Your task to perform on an android device: check the backup settings in the google photos Image 0: 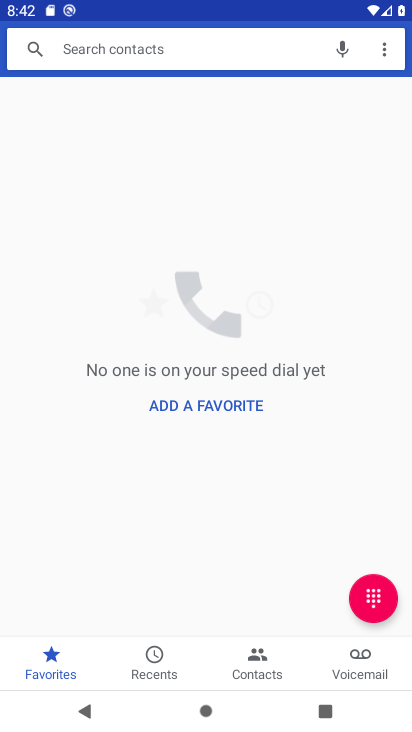
Step 0: press home button
Your task to perform on an android device: check the backup settings in the google photos Image 1: 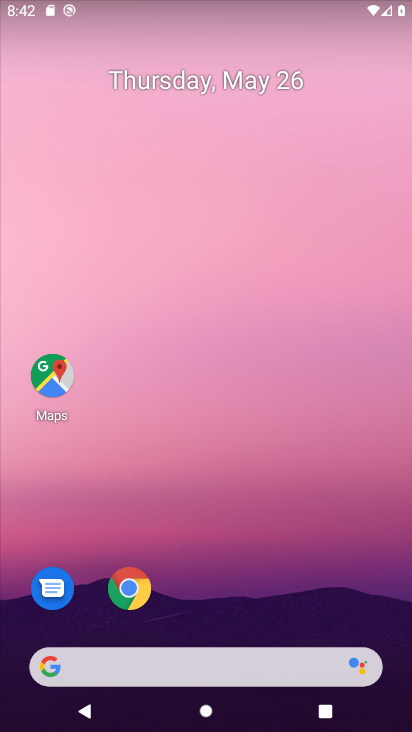
Step 1: drag from (203, 611) to (10, 361)
Your task to perform on an android device: check the backup settings in the google photos Image 2: 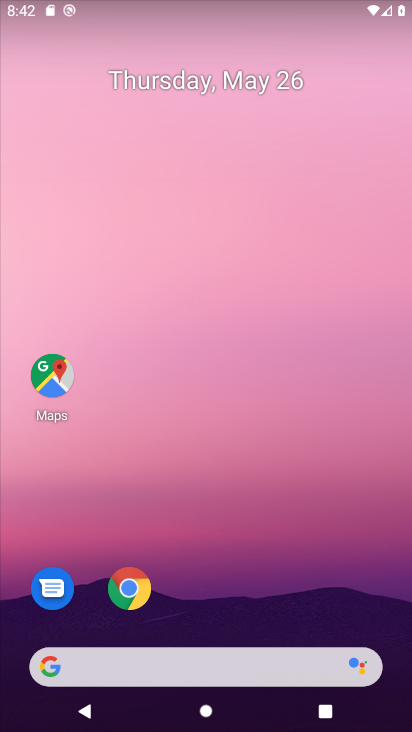
Step 2: drag from (236, 611) to (242, 24)
Your task to perform on an android device: check the backup settings in the google photos Image 3: 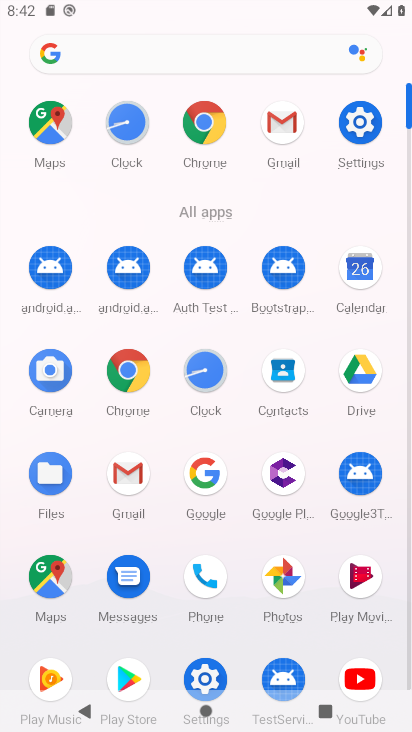
Step 3: click (277, 586)
Your task to perform on an android device: check the backup settings in the google photos Image 4: 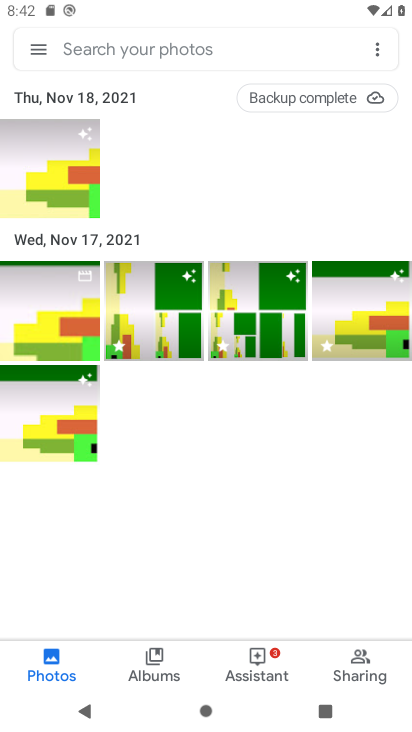
Step 4: click (33, 54)
Your task to perform on an android device: check the backup settings in the google photos Image 5: 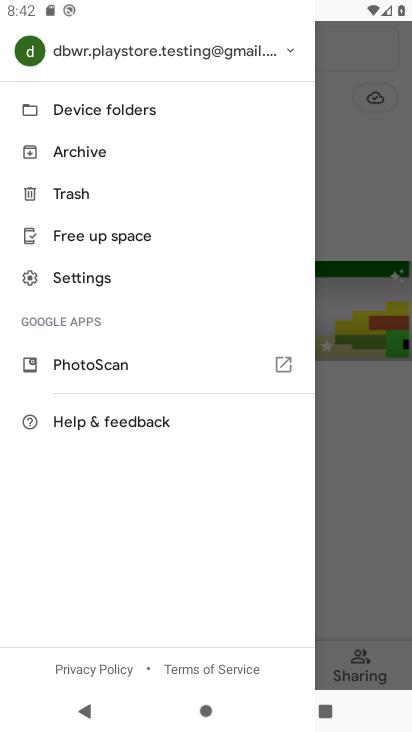
Step 5: click (104, 293)
Your task to perform on an android device: check the backup settings in the google photos Image 6: 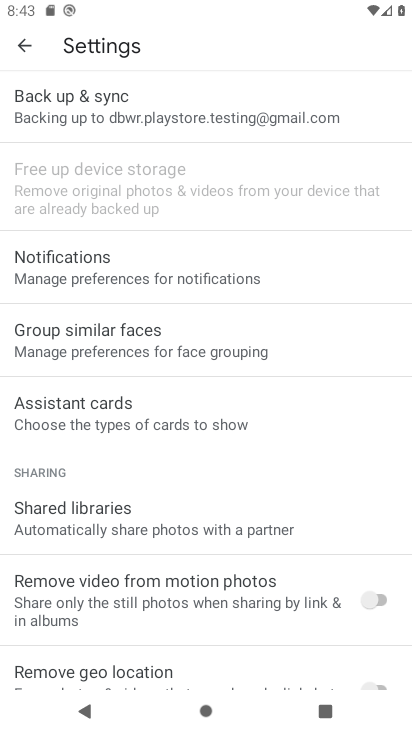
Step 6: click (109, 103)
Your task to perform on an android device: check the backup settings in the google photos Image 7: 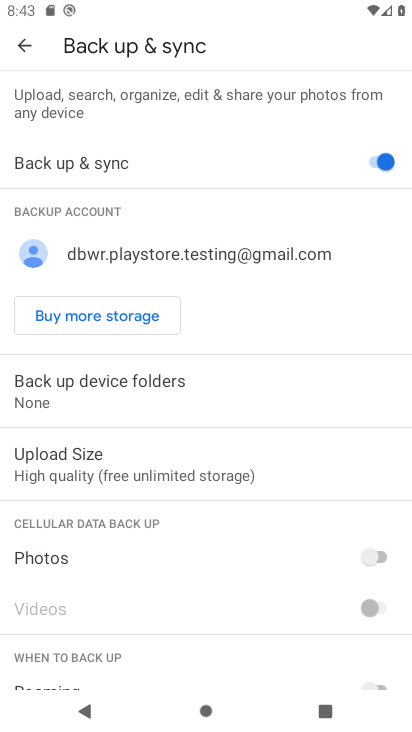
Step 7: task complete